Your task to perform on an android device: turn off location history Image 0: 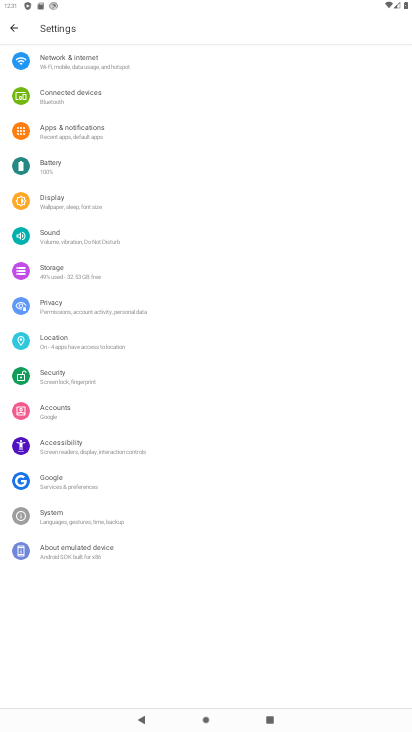
Step 0: click (93, 336)
Your task to perform on an android device: turn off location history Image 1: 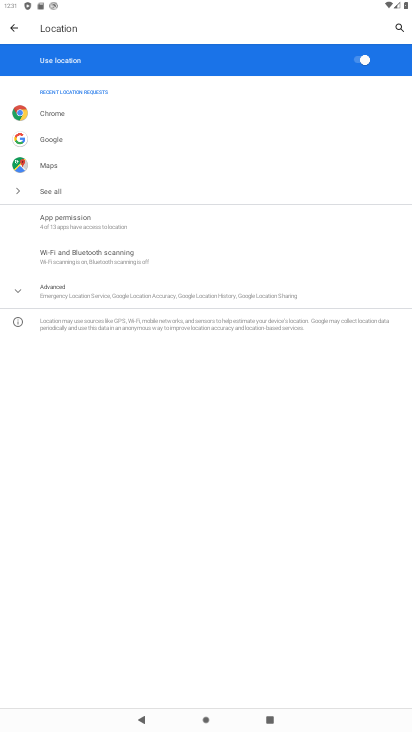
Step 1: click (104, 294)
Your task to perform on an android device: turn off location history Image 2: 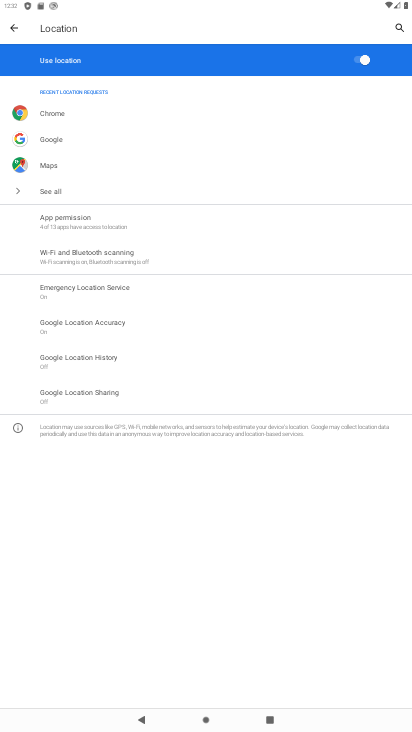
Step 2: click (114, 353)
Your task to perform on an android device: turn off location history Image 3: 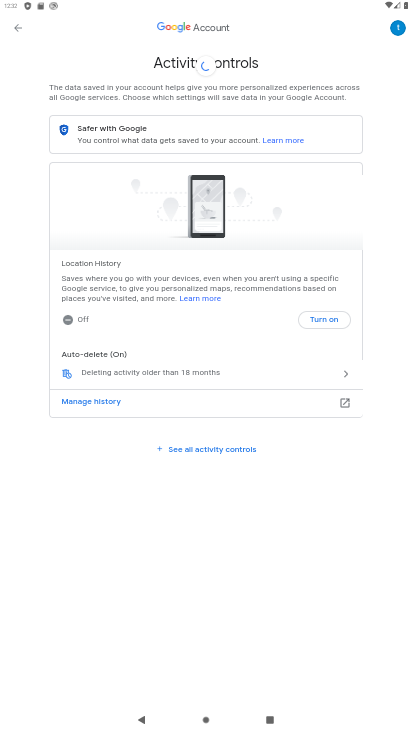
Step 3: click (79, 316)
Your task to perform on an android device: turn off location history Image 4: 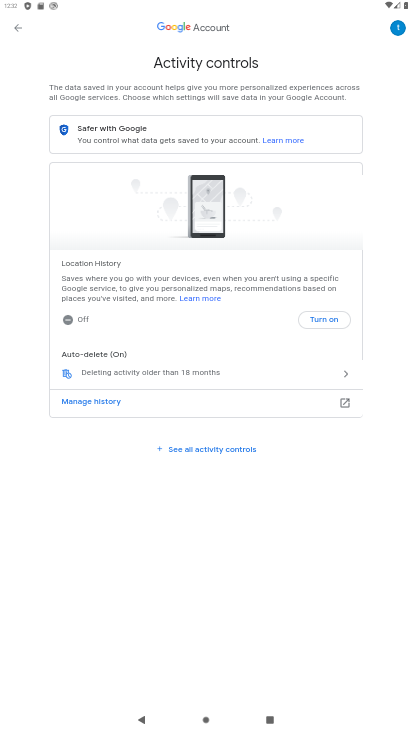
Step 4: task complete